Your task to perform on an android device: What's on my calendar today? Image 0: 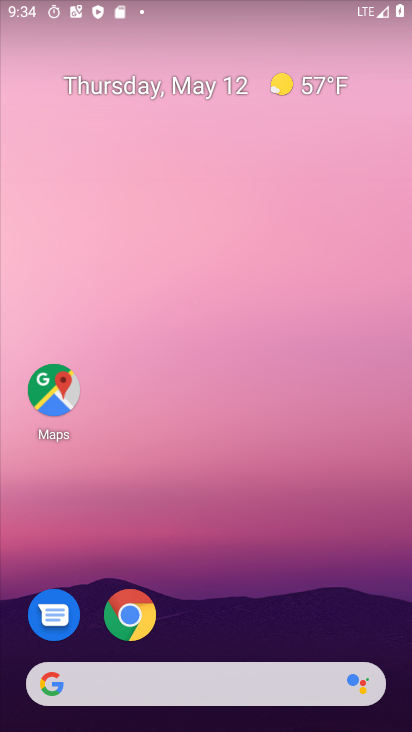
Step 0: drag from (223, 592) to (249, 24)
Your task to perform on an android device: What's on my calendar today? Image 1: 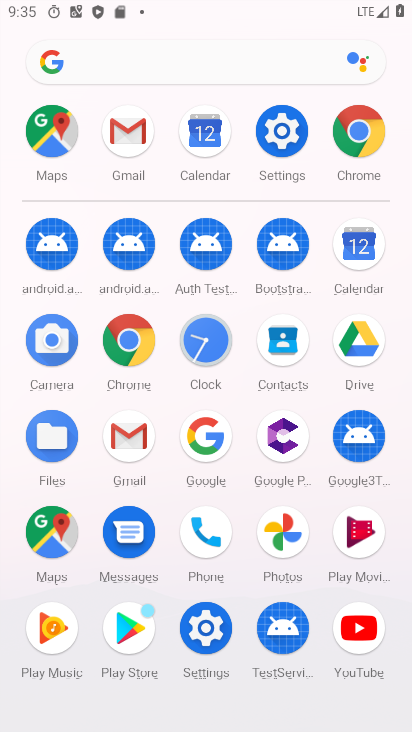
Step 1: click (359, 241)
Your task to perform on an android device: What's on my calendar today? Image 2: 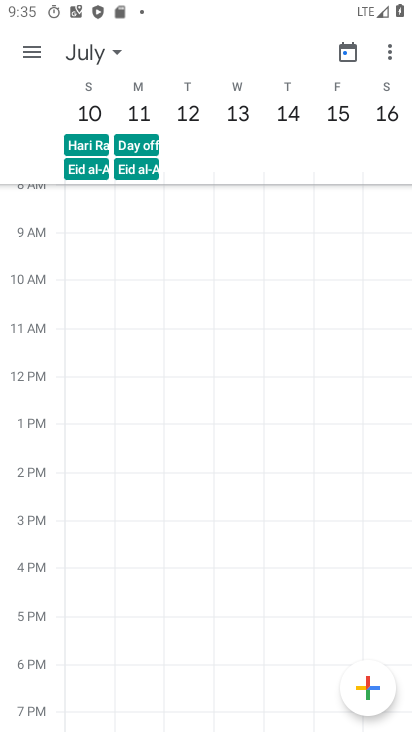
Step 2: click (346, 53)
Your task to perform on an android device: What's on my calendar today? Image 3: 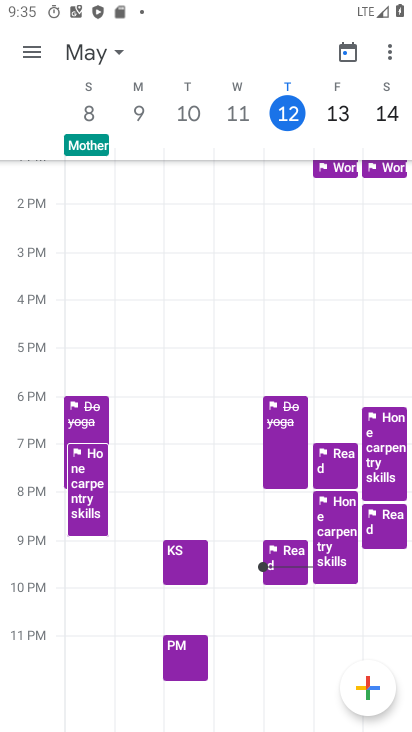
Step 3: click (26, 40)
Your task to perform on an android device: What's on my calendar today? Image 4: 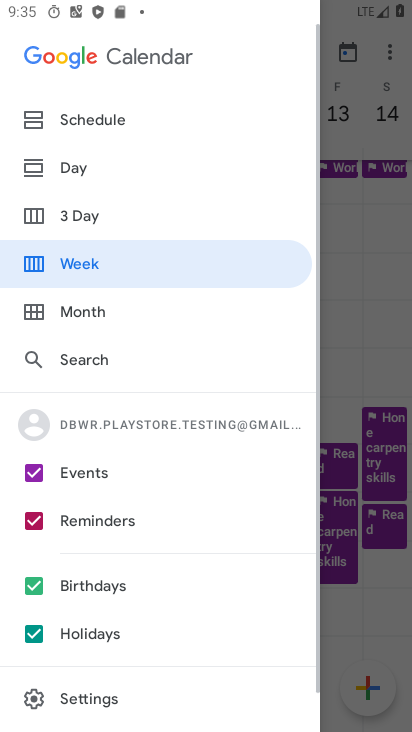
Step 4: click (79, 167)
Your task to perform on an android device: What's on my calendar today? Image 5: 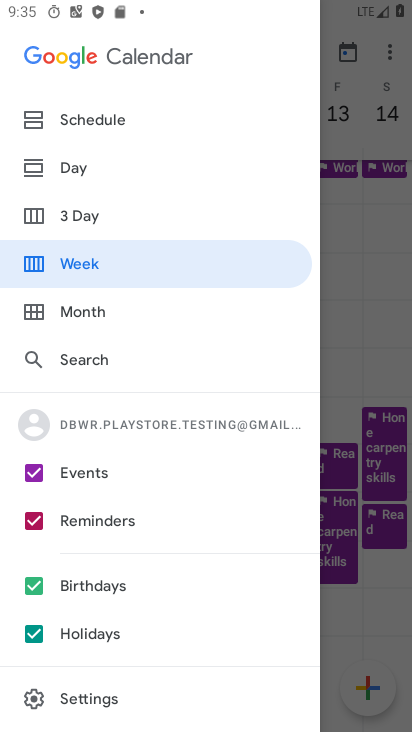
Step 5: click (55, 161)
Your task to perform on an android device: What's on my calendar today? Image 6: 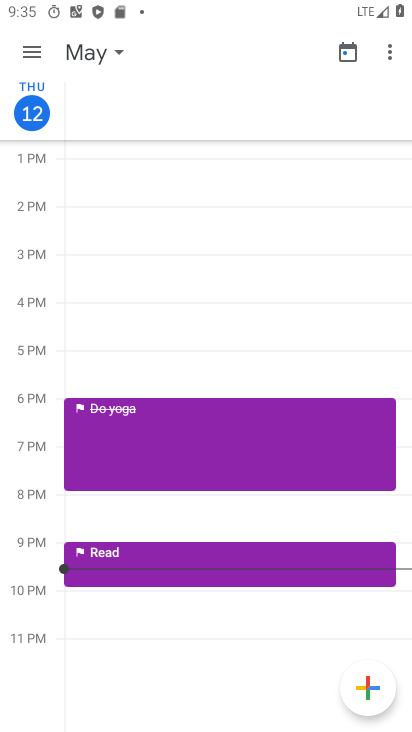
Step 6: task complete